Your task to perform on an android device: change the clock display to analog Image 0: 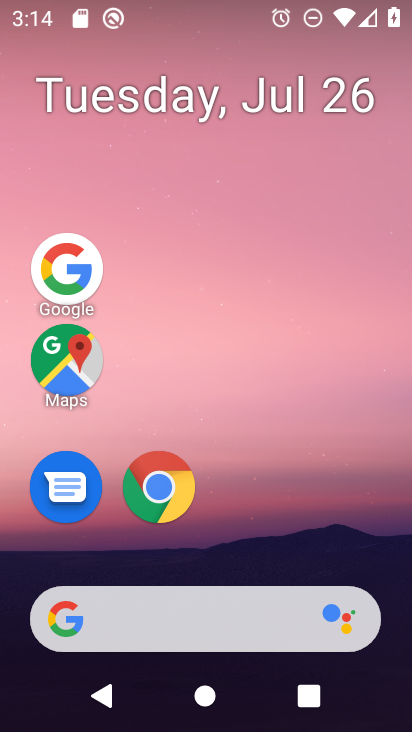
Step 0: drag from (237, 650) to (221, 102)
Your task to perform on an android device: change the clock display to analog Image 1: 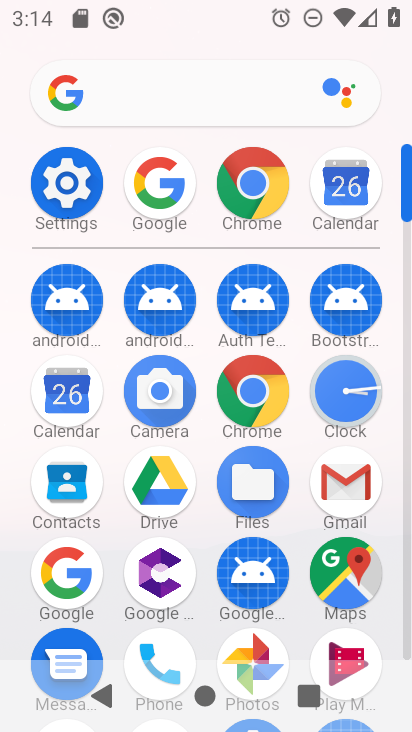
Step 1: click (346, 419)
Your task to perform on an android device: change the clock display to analog Image 2: 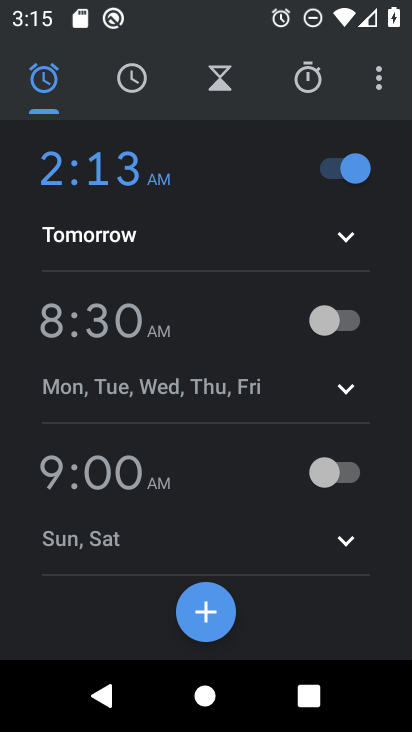
Step 2: click (373, 80)
Your task to perform on an android device: change the clock display to analog Image 3: 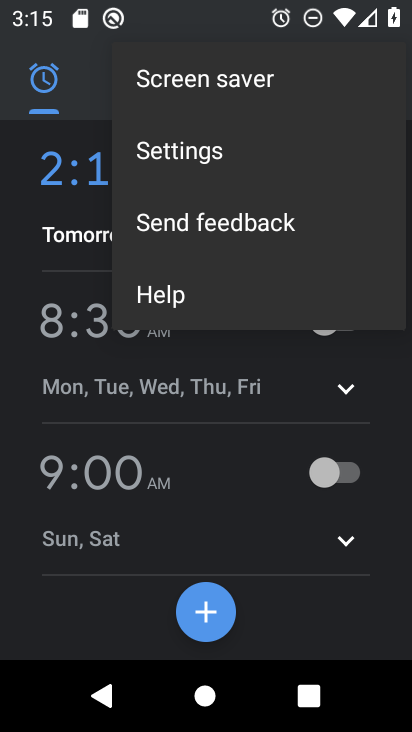
Step 3: click (189, 149)
Your task to perform on an android device: change the clock display to analog Image 4: 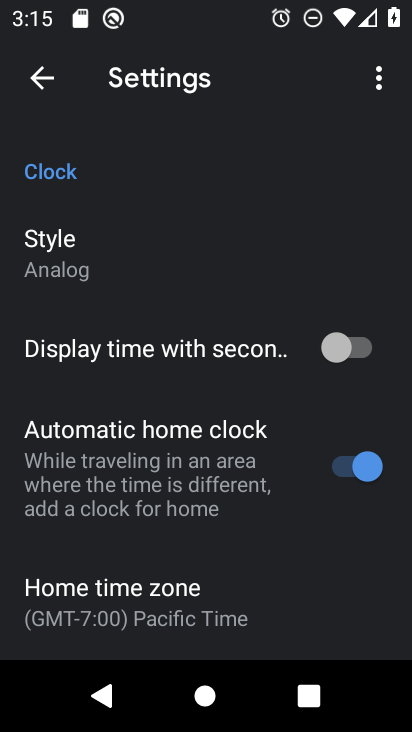
Step 4: task complete